Your task to perform on an android device: Open Reddit.com Image 0: 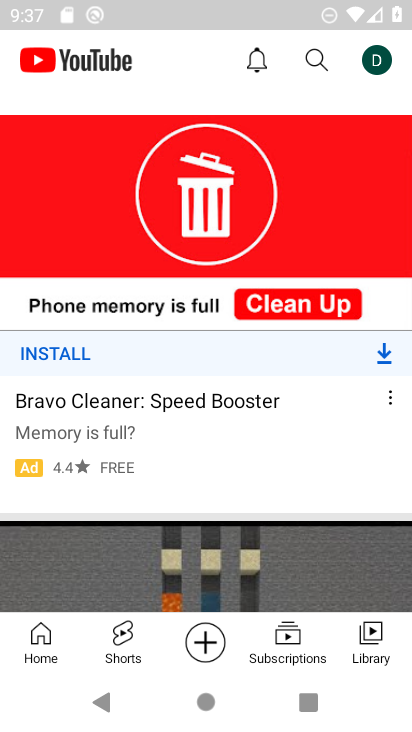
Step 0: press back button
Your task to perform on an android device: Open Reddit.com Image 1: 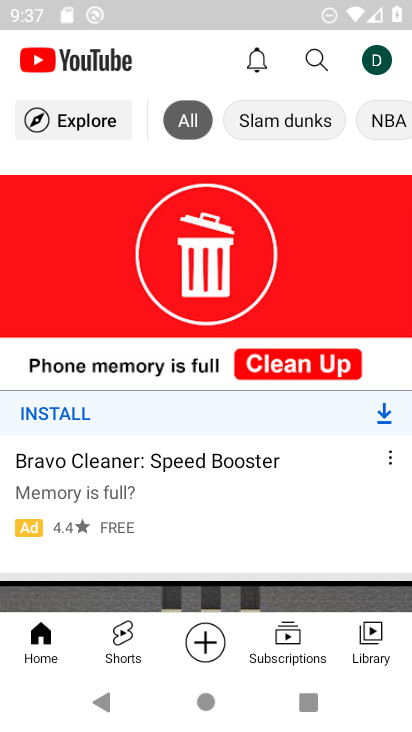
Step 1: press back button
Your task to perform on an android device: Open Reddit.com Image 2: 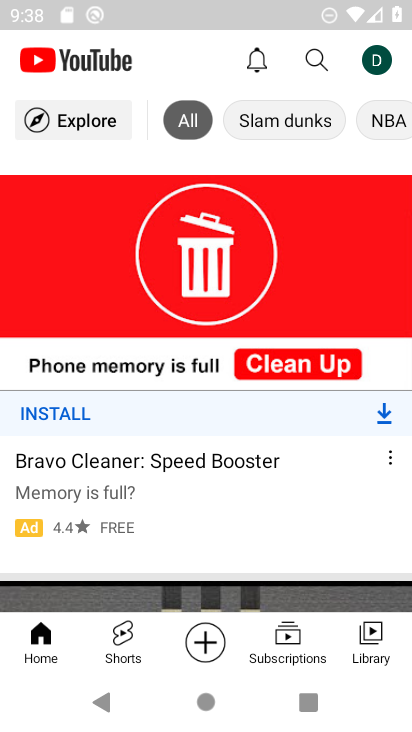
Step 2: press back button
Your task to perform on an android device: Open Reddit.com Image 3: 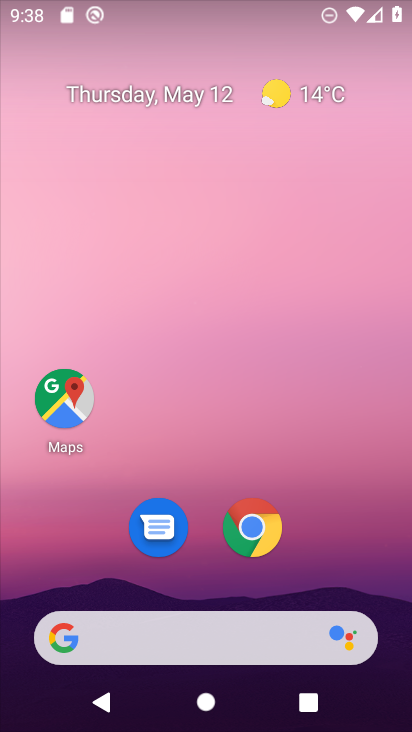
Step 3: drag from (299, 571) to (322, 70)
Your task to perform on an android device: Open Reddit.com Image 4: 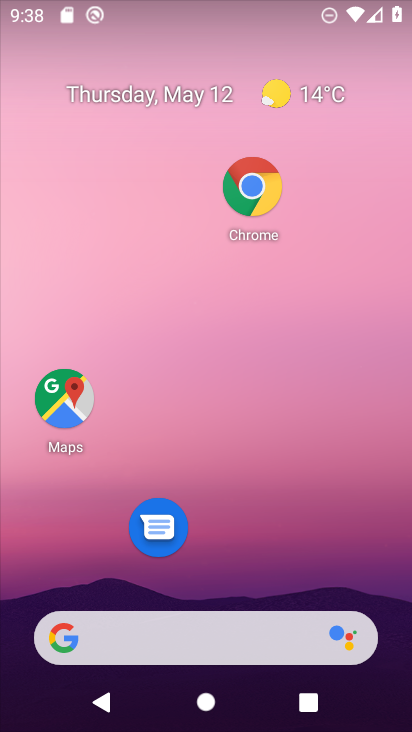
Step 4: click (248, 228)
Your task to perform on an android device: Open Reddit.com Image 5: 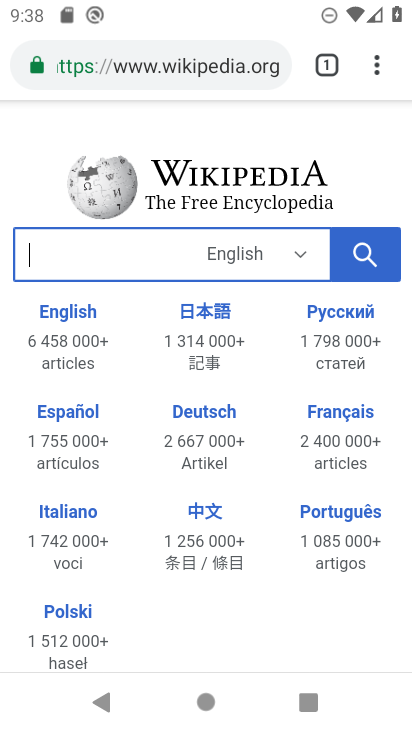
Step 5: click (257, 80)
Your task to perform on an android device: Open Reddit.com Image 6: 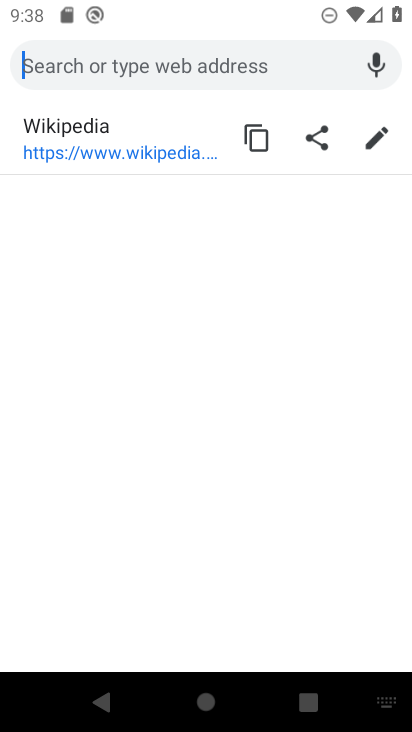
Step 6: type "reddit.com"
Your task to perform on an android device: Open Reddit.com Image 7: 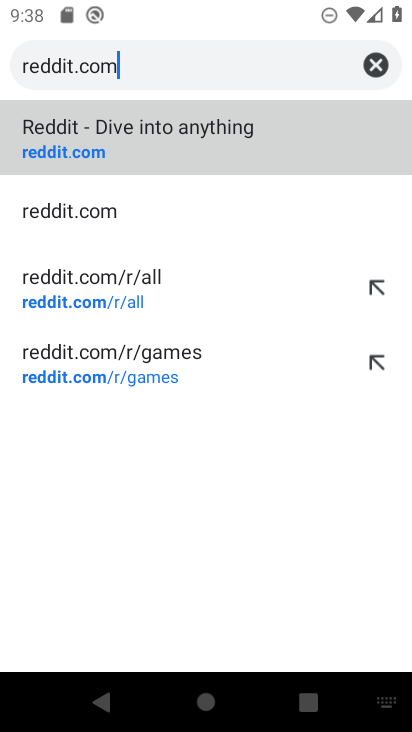
Step 7: click (150, 151)
Your task to perform on an android device: Open Reddit.com Image 8: 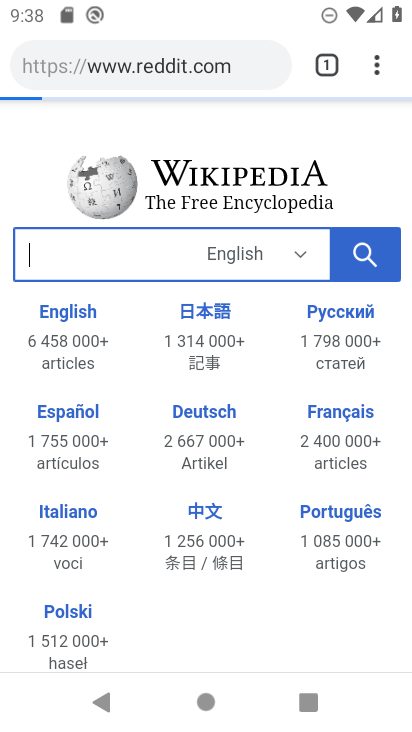
Step 8: task complete